Your task to perform on an android device: check android version Image 0: 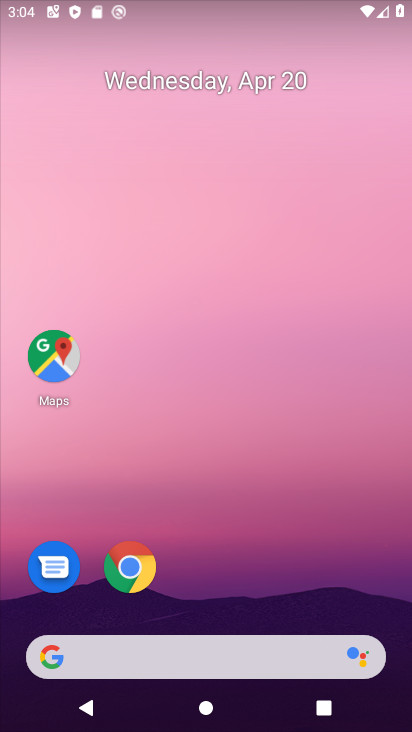
Step 0: drag from (325, 514) to (343, 171)
Your task to perform on an android device: check android version Image 1: 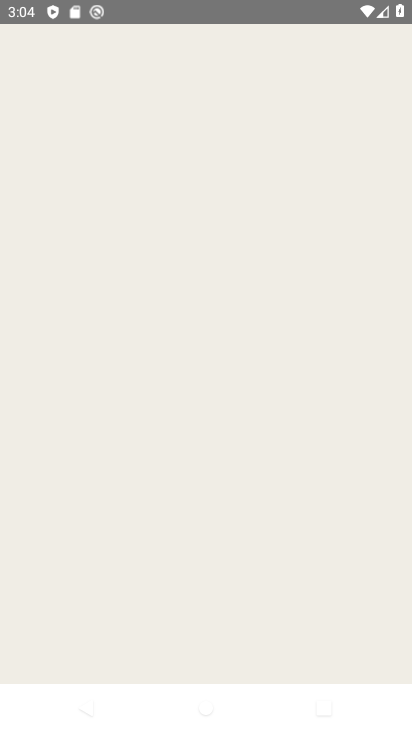
Step 1: press home button
Your task to perform on an android device: check android version Image 2: 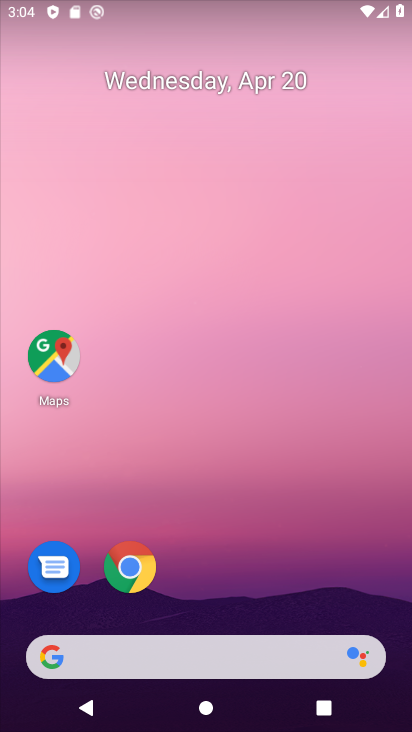
Step 2: drag from (306, 568) to (276, 90)
Your task to perform on an android device: check android version Image 3: 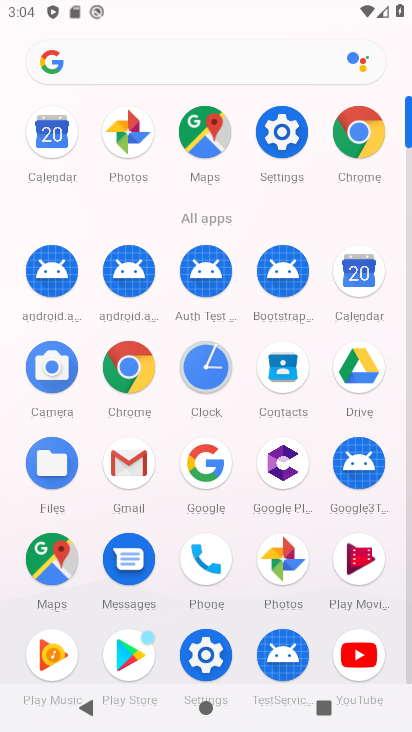
Step 3: click (287, 132)
Your task to perform on an android device: check android version Image 4: 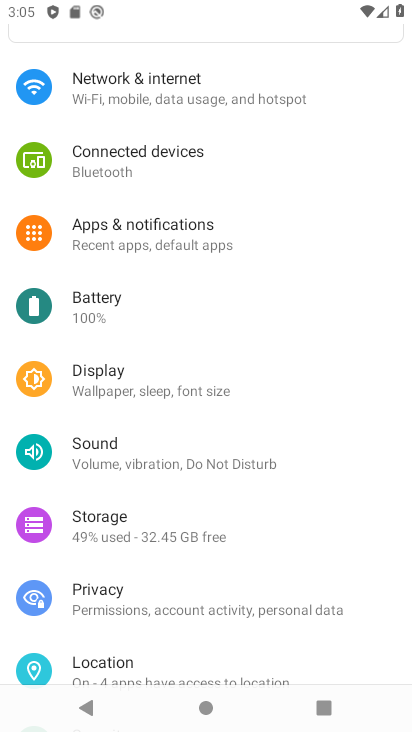
Step 4: drag from (192, 448) to (226, 94)
Your task to perform on an android device: check android version Image 5: 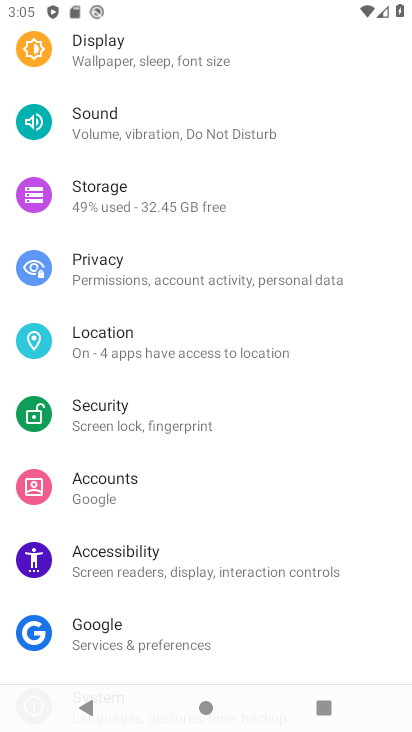
Step 5: drag from (221, 469) to (243, 59)
Your task to perform on an android device: check android version Image 6: 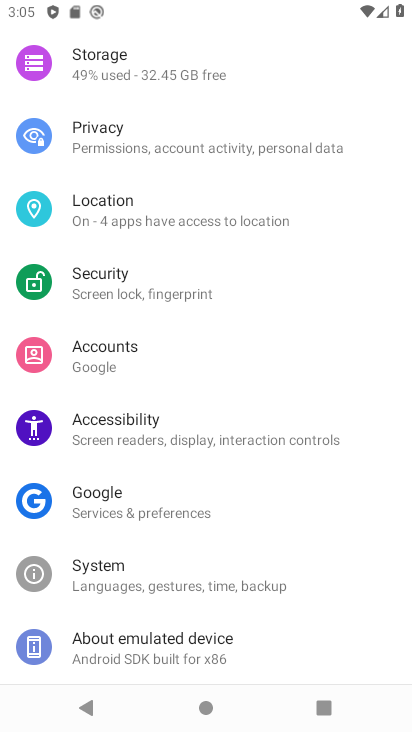
Step 6: click (263, 655)
Your task to perform on an android device: check android version Image 7: 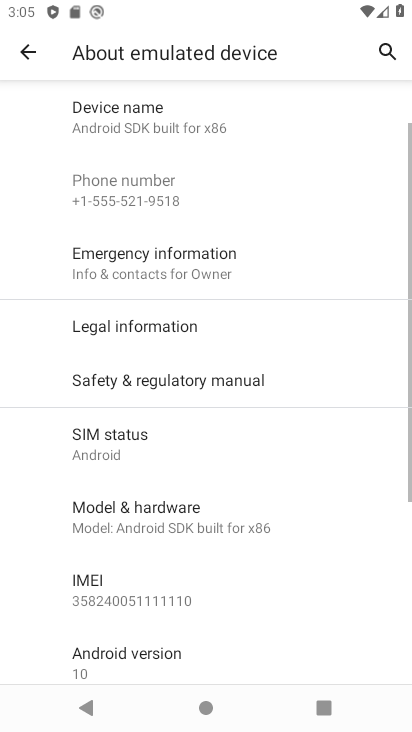
Step 7: drag from (263, 656) to (271, 508)
Your task to perform on an android device: check android version Image 8: 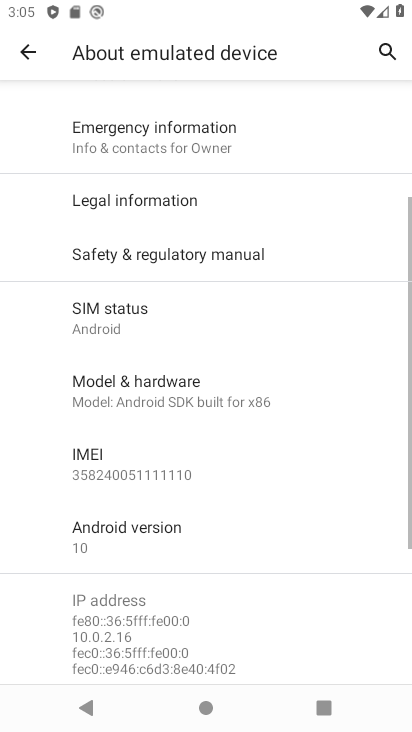
Step 8: click (246, 554)
Your task to perform on an android device: check android version Image 9: 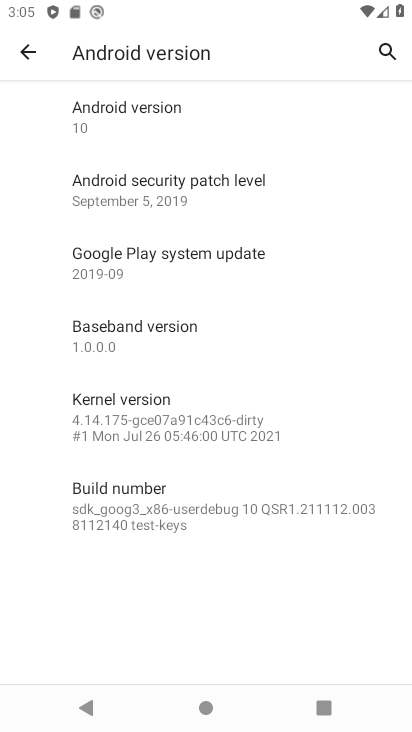
Step 9: task complete